Your task to perform on an android device: Open internet settings Image 0: 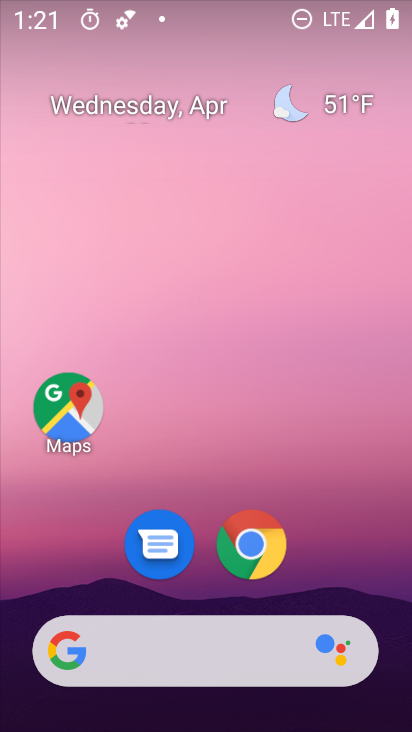
Step 0: drag from (359, 583) to (344, 261)
Your task to perform on an android device: Open internet settings Image 1: 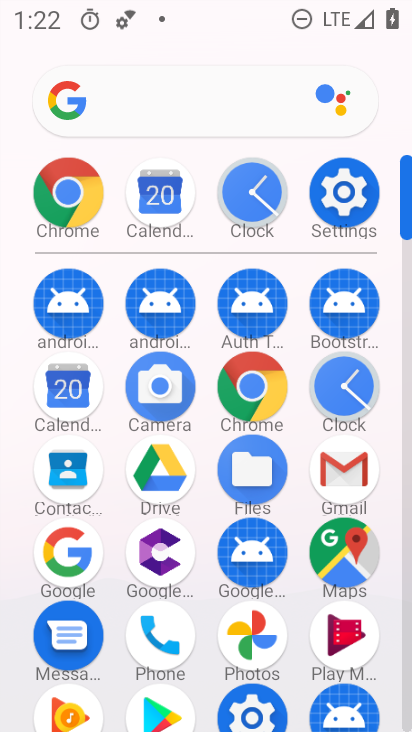
Step 1: click (340, 194)
Your task to perform on an android device: Open internet settings Image 2: 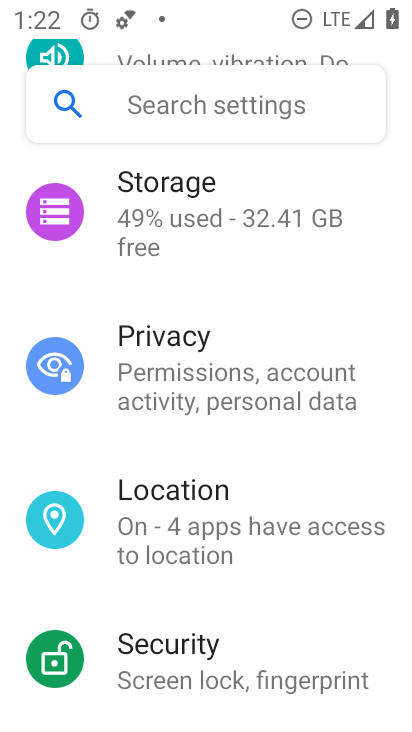
Step 2: drag from (356, 603) to (370, 455)
Your task to perform on an android device: Open internet settings Image 3: 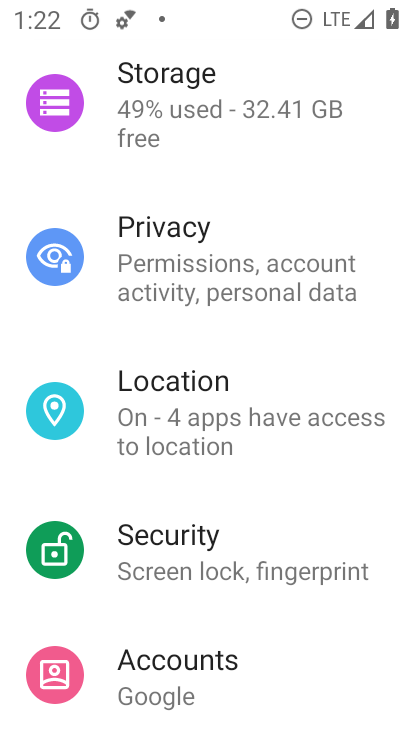
Step 3: drag from (350, 640) to (355, 440)
Your task to perform on an android device: Open internet settings Image 4: 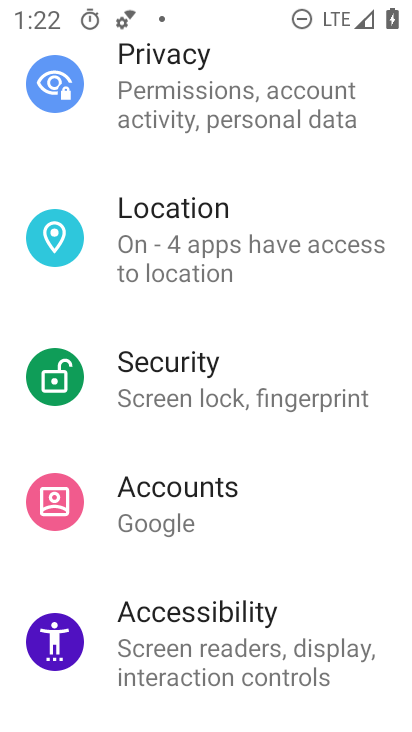
Step 4: drag from (367, 314) to (372, 484)
Your task to perform on an android device: Open internet settings Image 5: 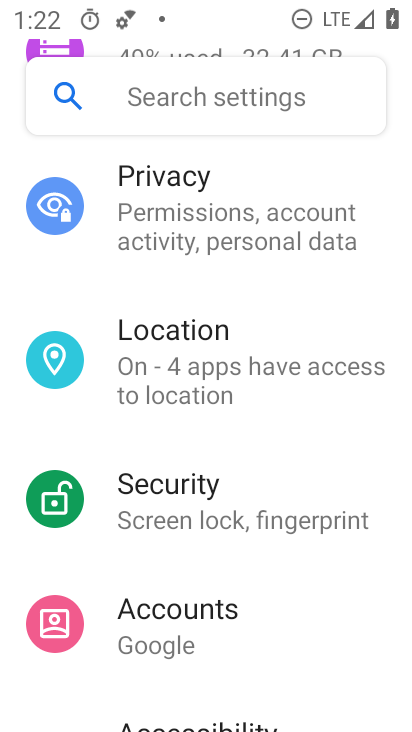
Step 5: drag from (376, 242) to (381, 434)
Your task to perform on an android device: Open internet settings Image 6: 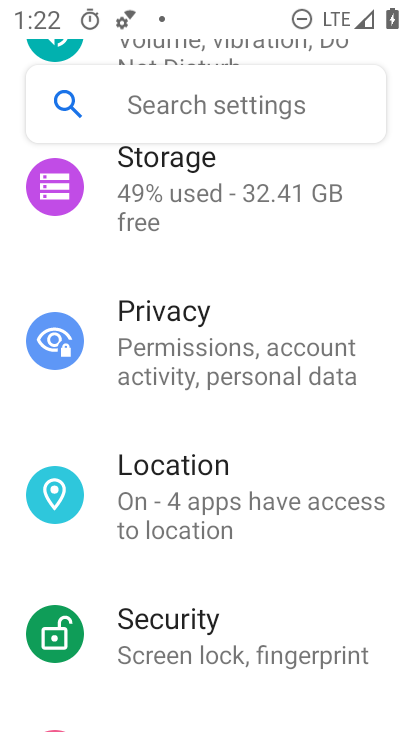
Step 6: drag from (384, 222) to (377, 419)
Your task to perform on an android device: Open internet settings Image 7: 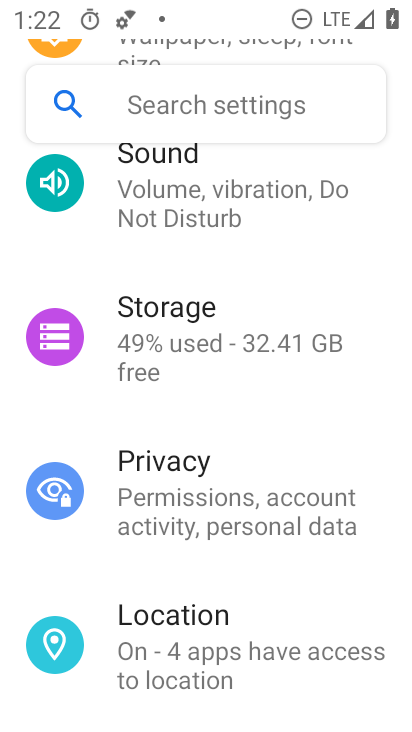
Step 7: drag from (365, 179) to (375, 408)
Your task to perform on an android device: Open internet settings Image 8: 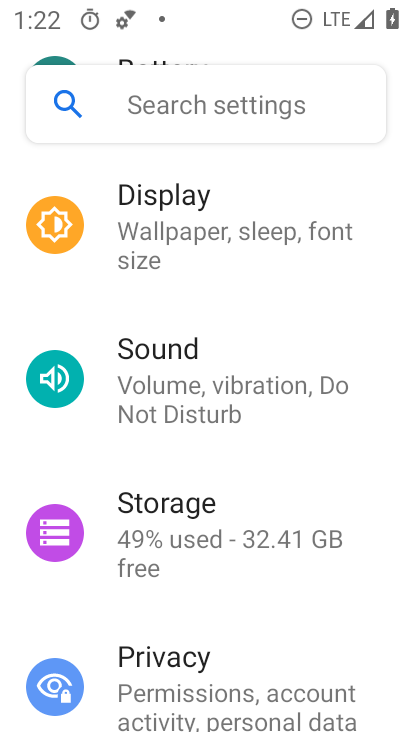
Step 8: drag from (367, 191) to (360, 415)
Your task to perform on an android device: Open internet settings Image 9: 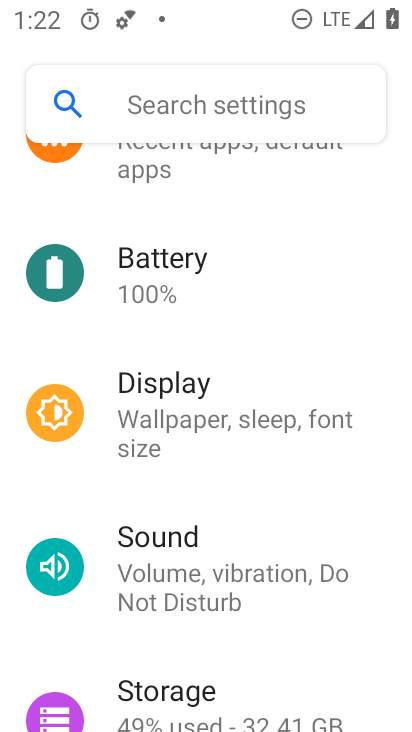
Step 9: drag from (365, 199) to (374, 392)
Your task to perform on an android device: Open internet settings Image 10: 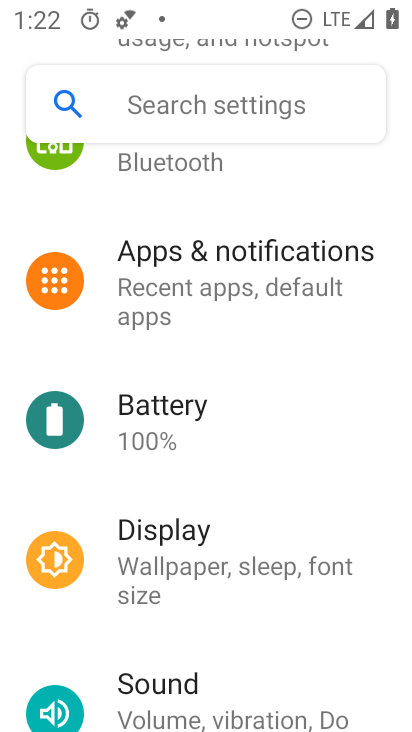
Step 10: drag from (392, 183) to (371, 404)
Your task to perform on an android device: Open internet settings Image 11: 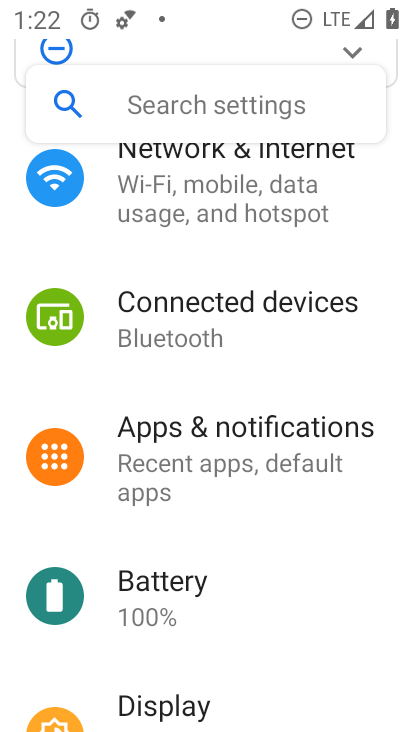
Step 11: drag from (381, 202) to (386, 368)
Your task to perform on an android device: Open internet settings Image 12: 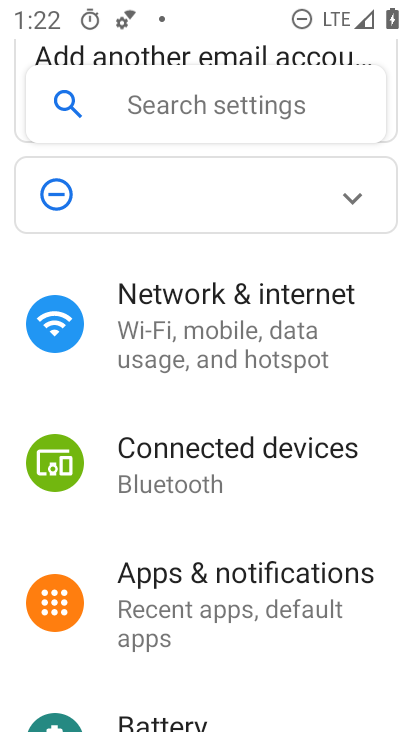
Step 12: click (232, 285)
Your task to perform on an android device: Open internet settings Image 13: 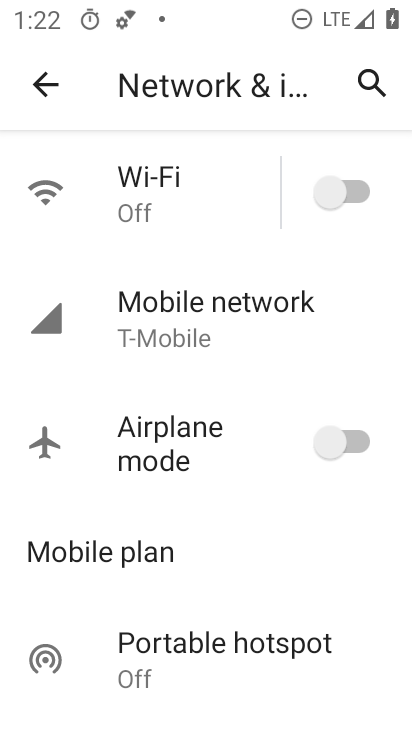
Step 13: task complete